Your task to perform on an android device: Clear all items from cart on ebay. Search for "apple airpods" on ebay, select the first entry, add it to the cart, then select checkout. Image 0: 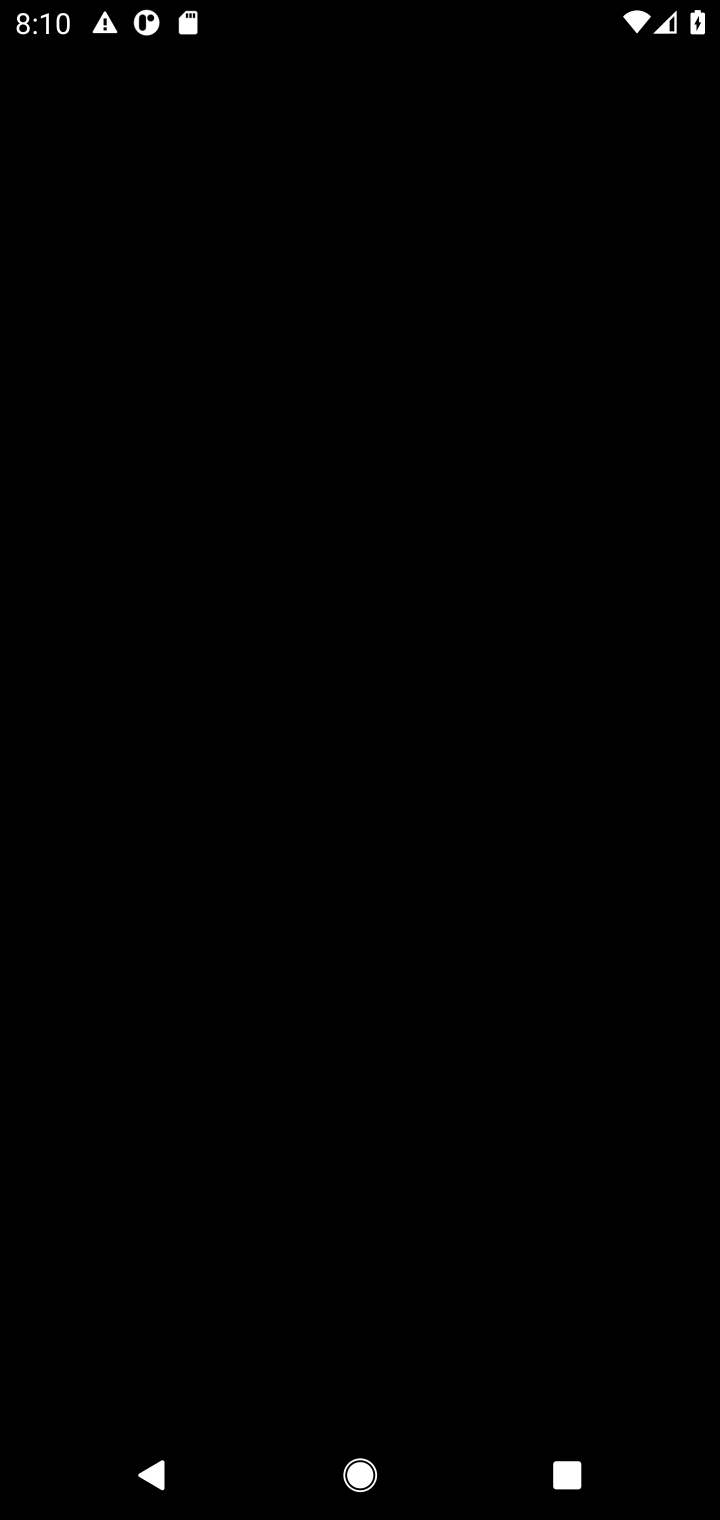
Step 0: press home button
Your task to perform on an android device: Clear all items from cart on ebay. Search for "apple airpods" on ebay, select the first entry, add it to the cart, then select checkout. Image 1: 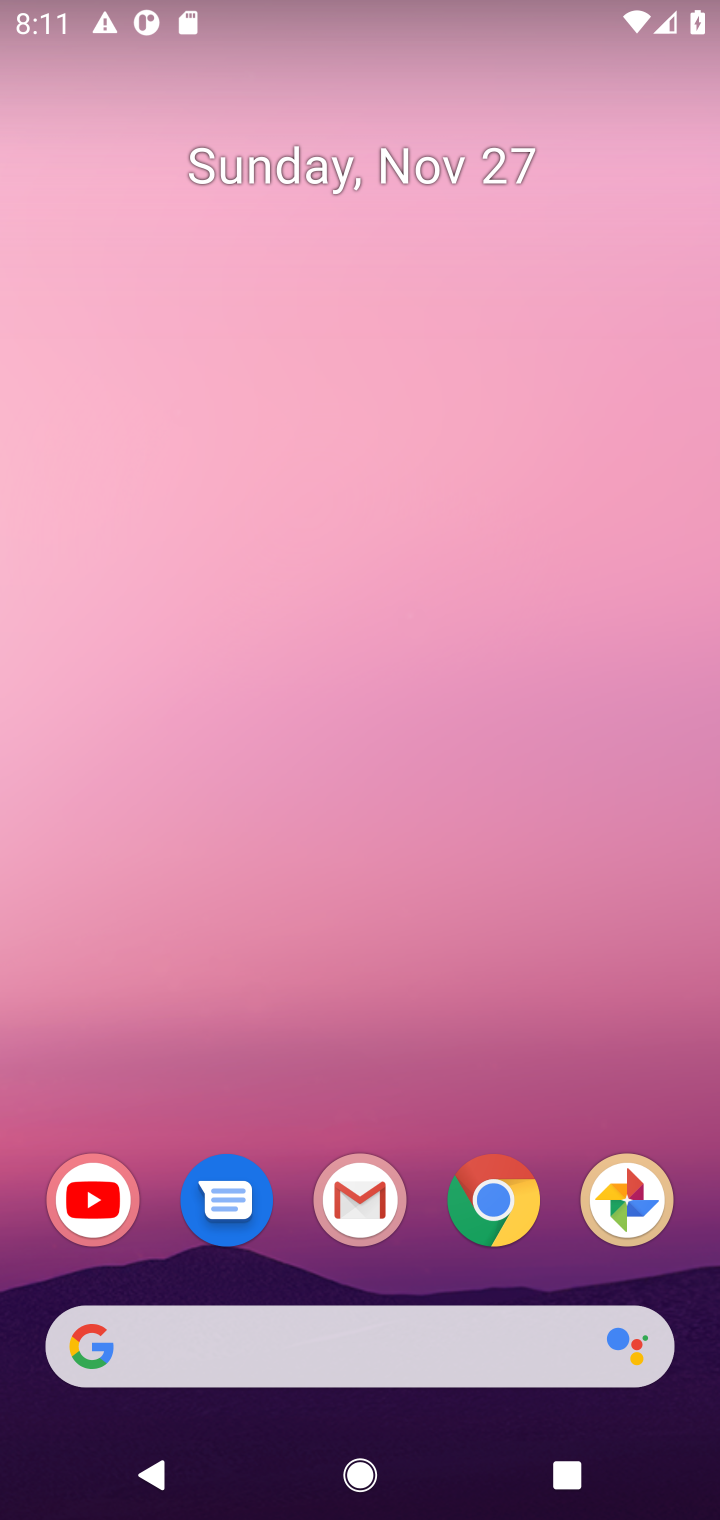
Step 1: click (491, 1201)
Your task to perform on an android device: Clear all items from cart on ebay. Search for "apple airpods" on ebay, select the first entry, add it to the cart, then select checkout. Image 2: 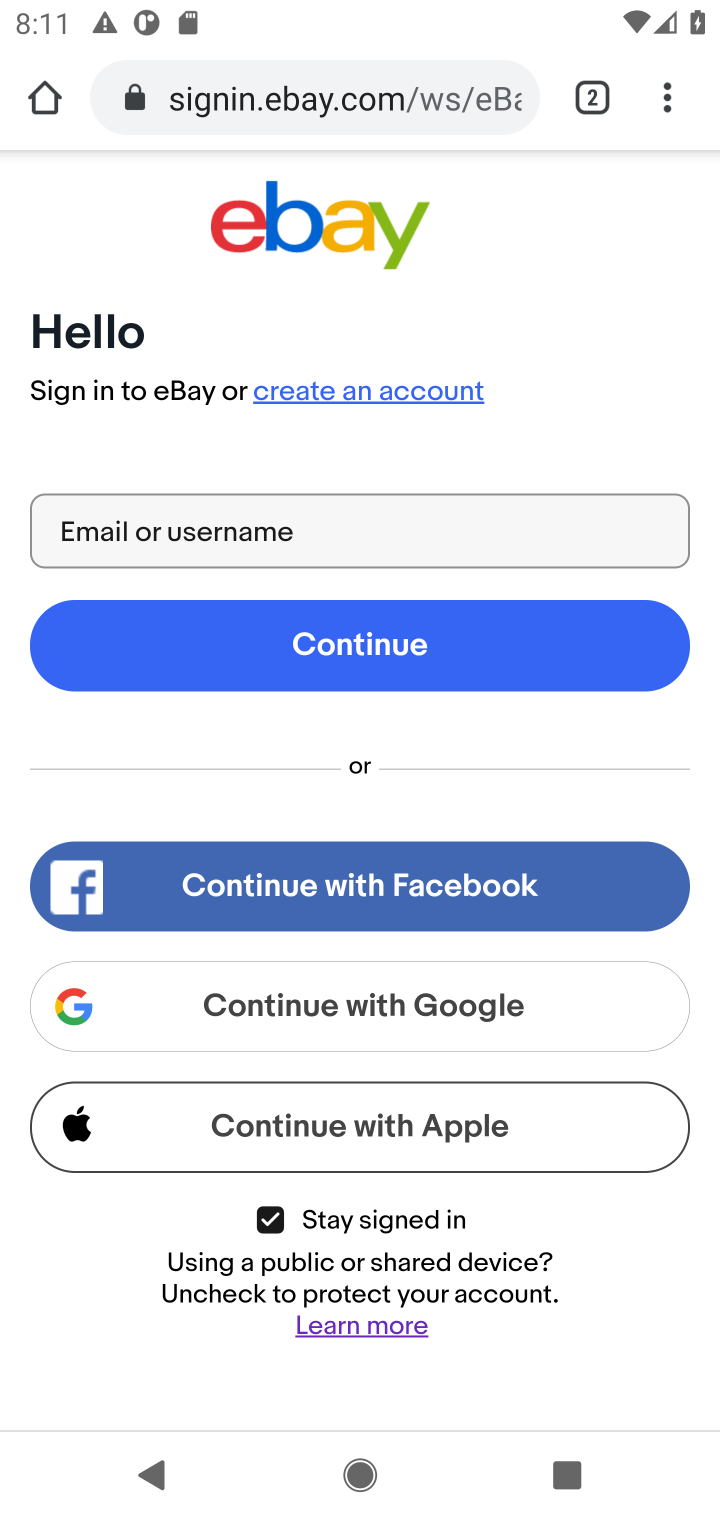
Step 2: press back button
Your task to perform on an android device: Clear all items from cart on ebay. Search for "apple airpods" on ebay, select the first entry, add it to the cart, then select checkout. Image 3: 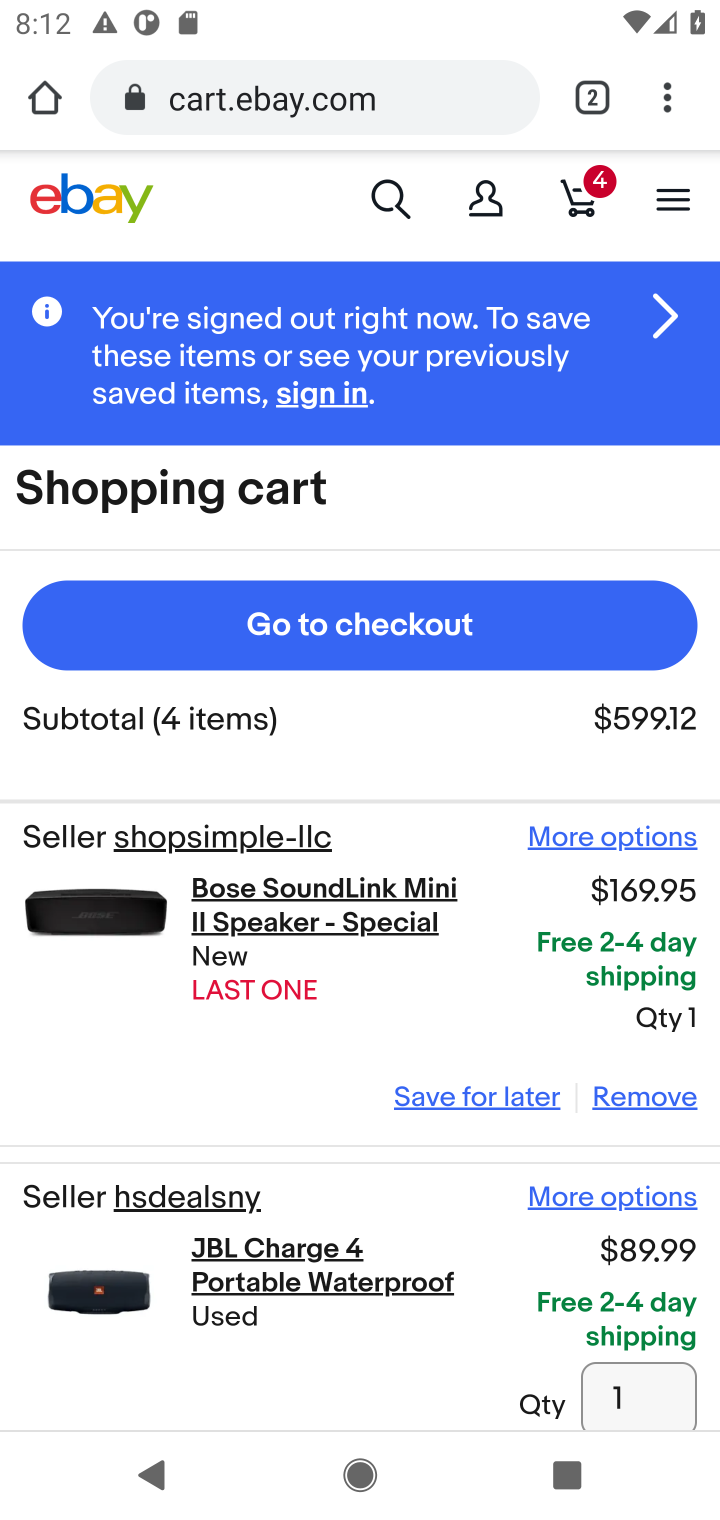
Step 3: click (644, 1105)
Your task to perform on an android device: Clear all items from cart on ebay. Search for "apple airpods" on ebay, select the first entry, add it to the cart, then select checkout. Image 4: 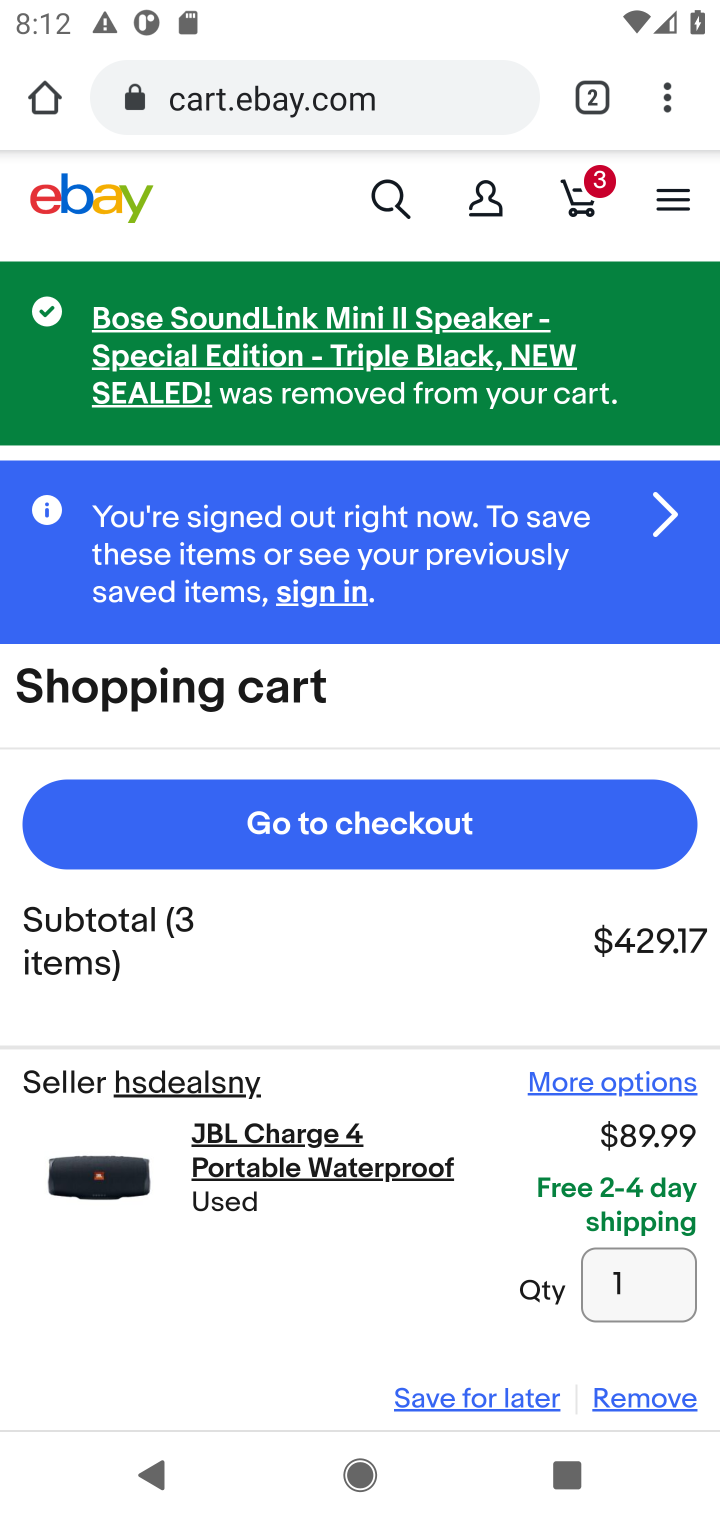
Step 4: click (626, 1405)
Your task to perform on an android device: Clear all items from cart on ebay. Search for "apple airpods" on ebay, select the first entry, add it to the cart, then select checkout. Image 5: 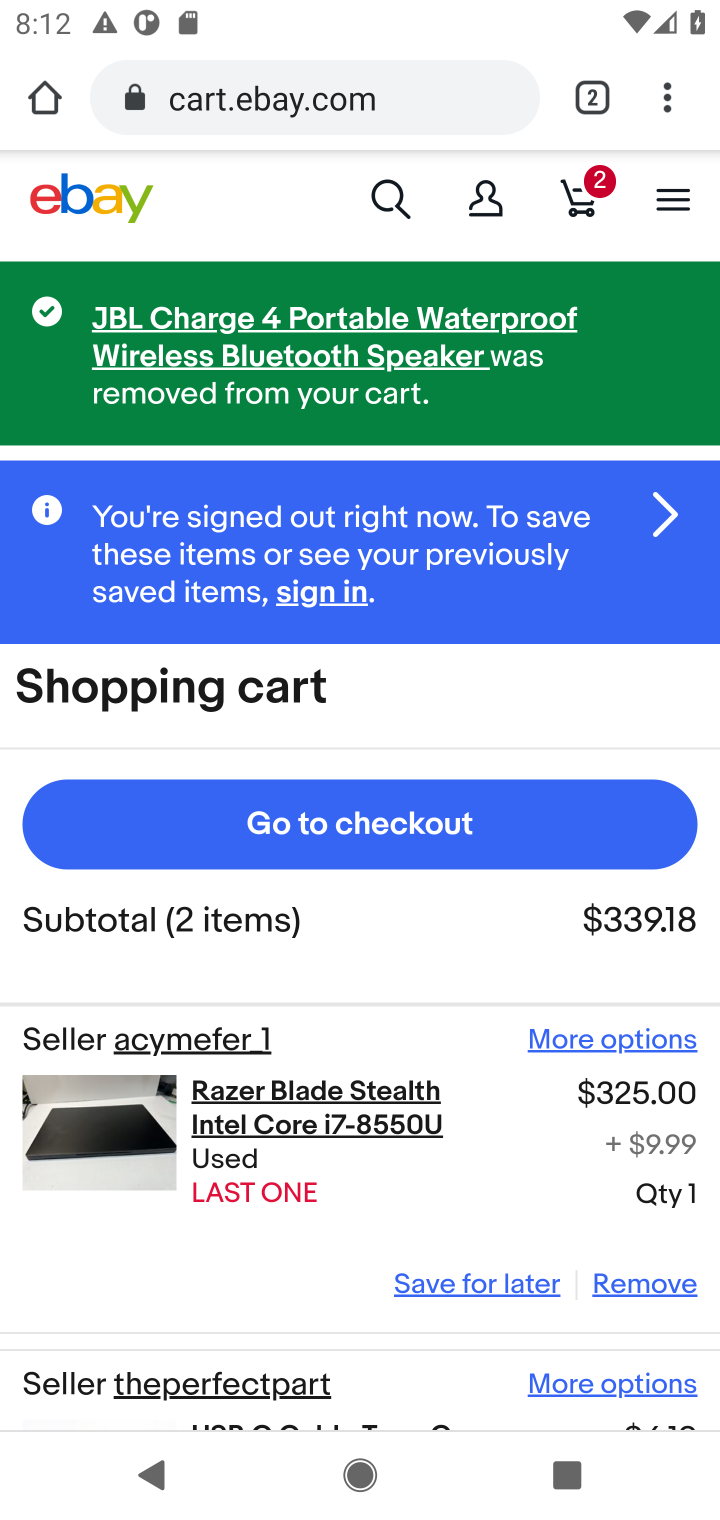
Step 5: click (639, 1296)
Your task to perform on an android device: Clear all items from cart on ebay. Search for "apple airpods" on ebay, select the first entry, add it to the cart, then select checkout. Image 6: 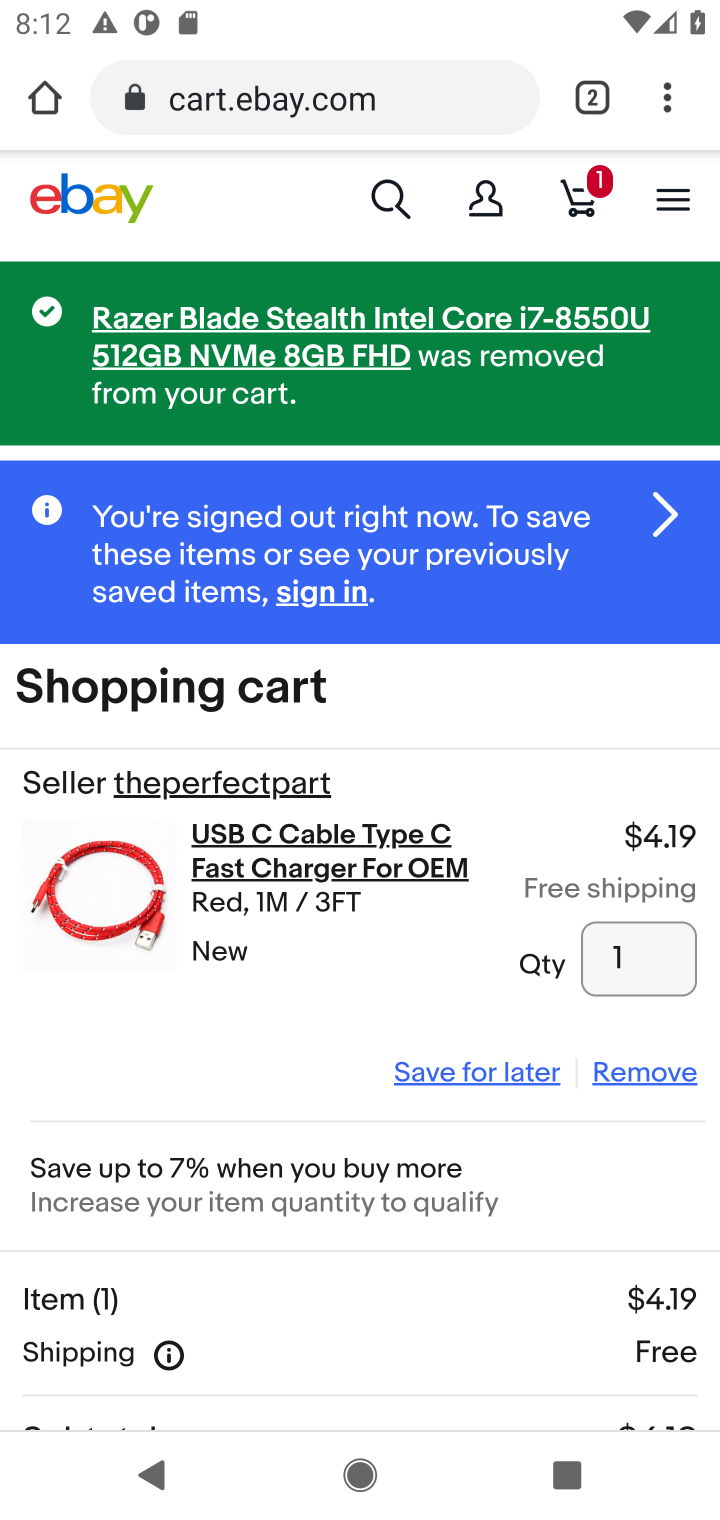
Step 6: click (647, 1072)
Your task to perform on an android device: Clear all items from cart on ebay. Search for "apple airpods" on ebay, select the first entry, add it to the cart, then select checkout. Image 7: 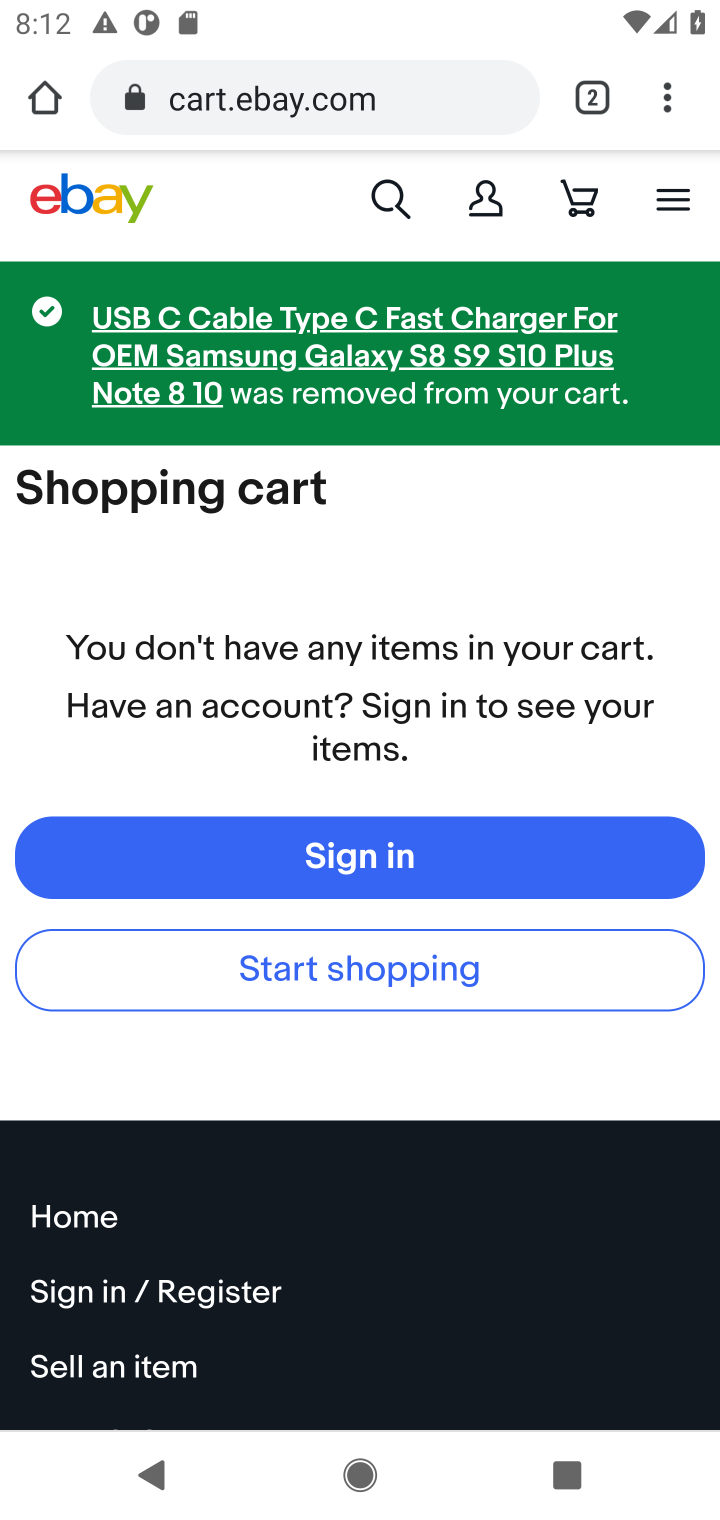
Step 7: click (395, 206)
Your task to perform on an android device: Clear all items from cart on ebay. Search for "apple airpods" on ebay, select the first entry, add it to the cart, then select checkout. Image 8: 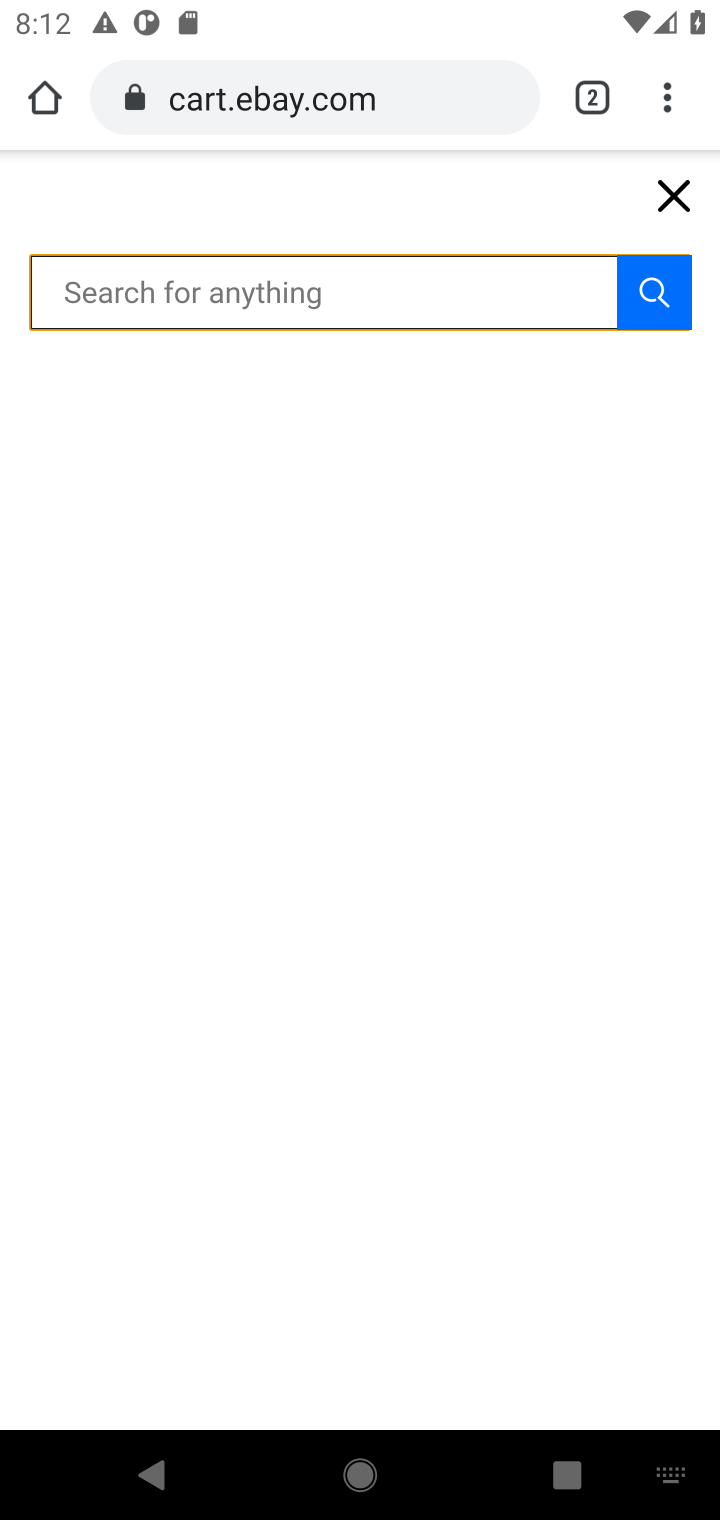
Step 8: type "apple airpods"
Your task to perform on an android device: Clear all items from cart on ebay. Search for "apple airpods" on ebay, select the first entry, add it to the cart, then select checkout. Image 9: 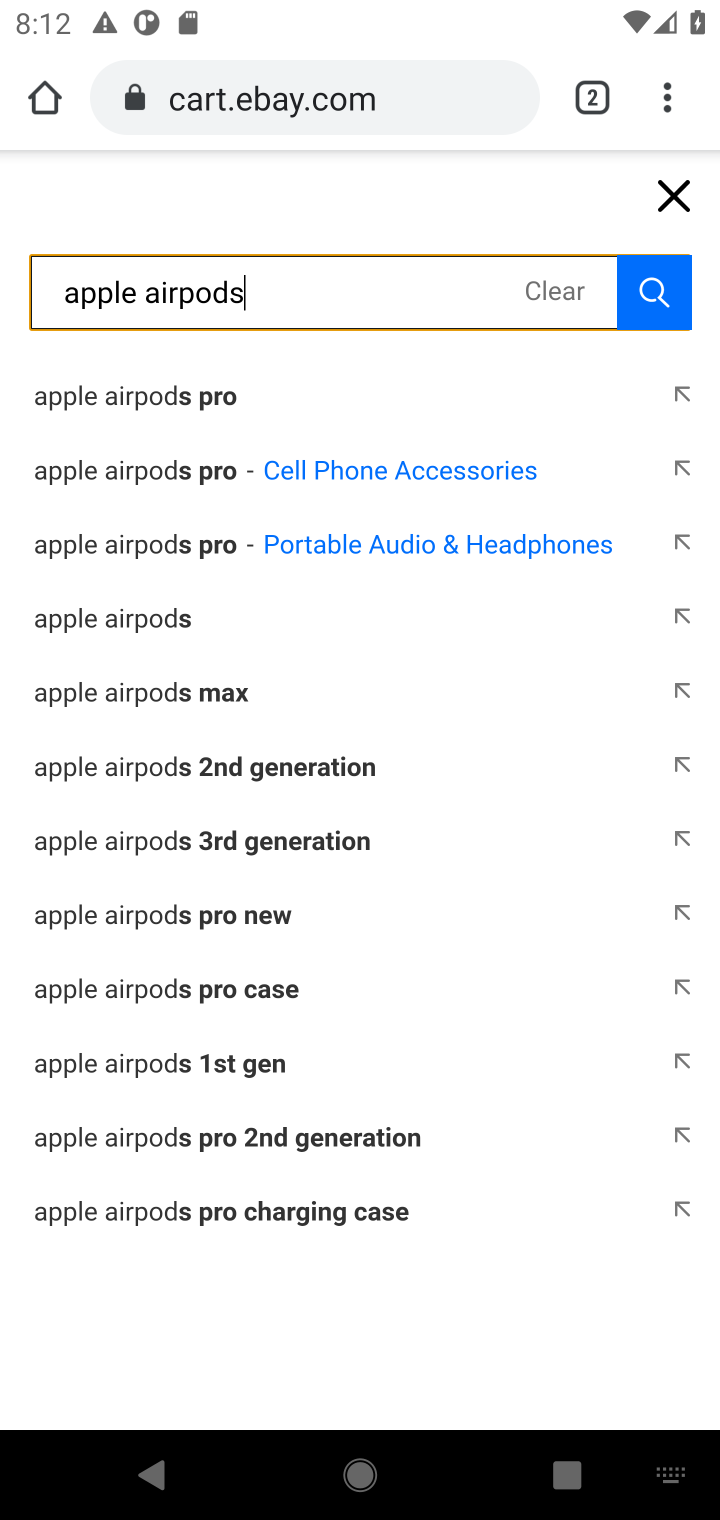
Step 9: click (145, 620)
Your task to perform on an android device: Clear all items from cart on ebay. Search for "apple airpods" on ebay, select the first entry, add it to the cart, then select checkout. Image 10: 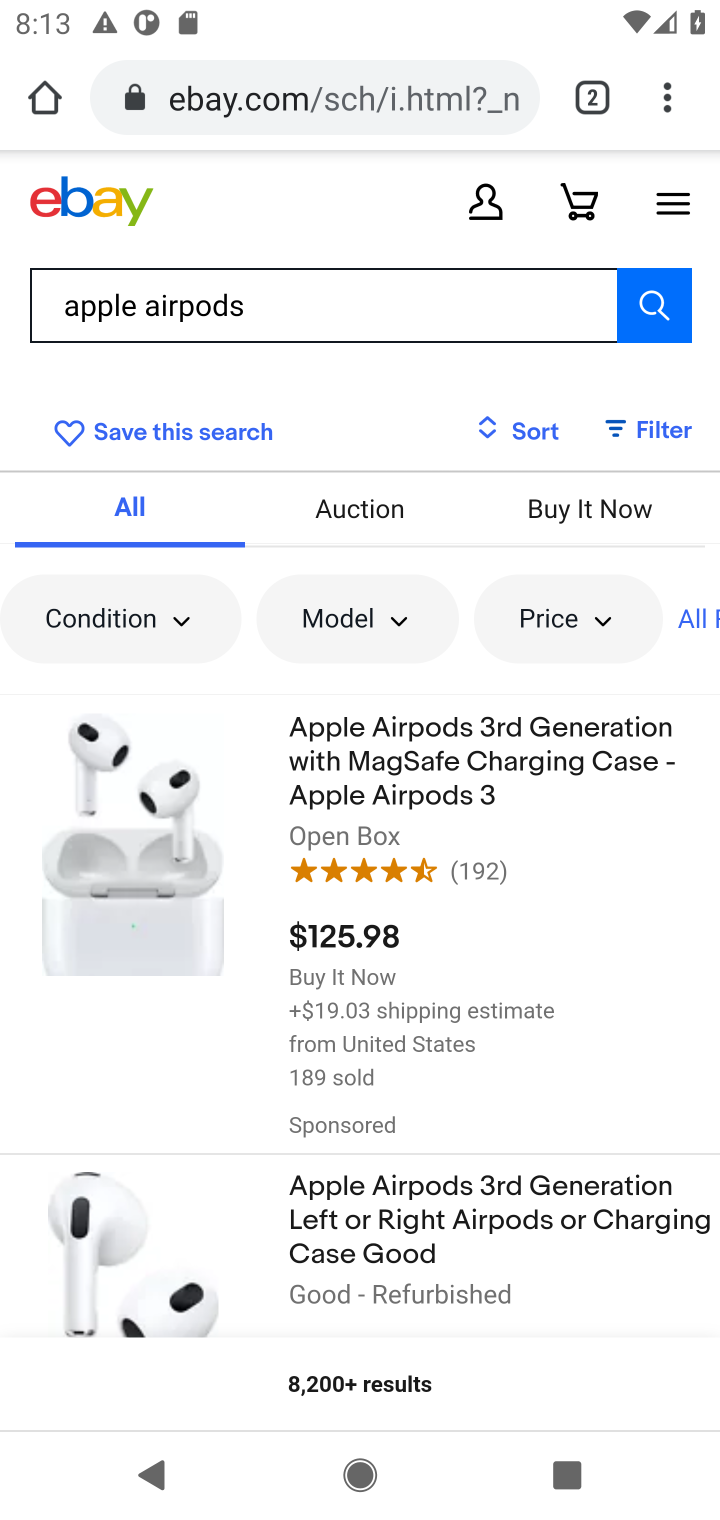
Step 10: click (125, 816)
Your task to perform on an android device: Clear all items from cart on ebay. Search for "apple airpods" on ebay, select the first entry, add it to the cart, then select checkout. Image 11: 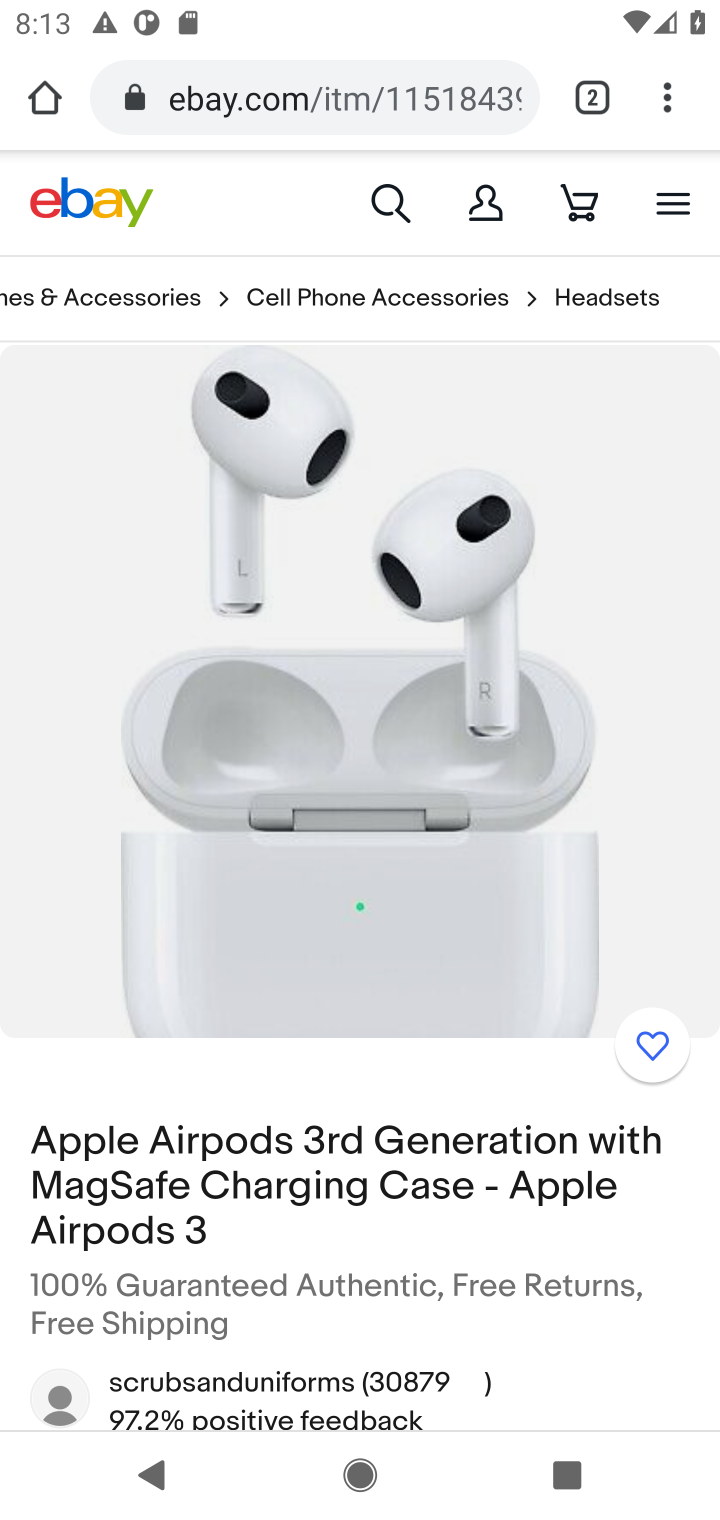
Step 11: drag from (350, 1003) to (377, 563)
Your task to perform on an android device: Clear all items from cart on ebay. Search for "apple airpods" on ebay, select the first entry, add it to the cart, then select checkout. Image 12: 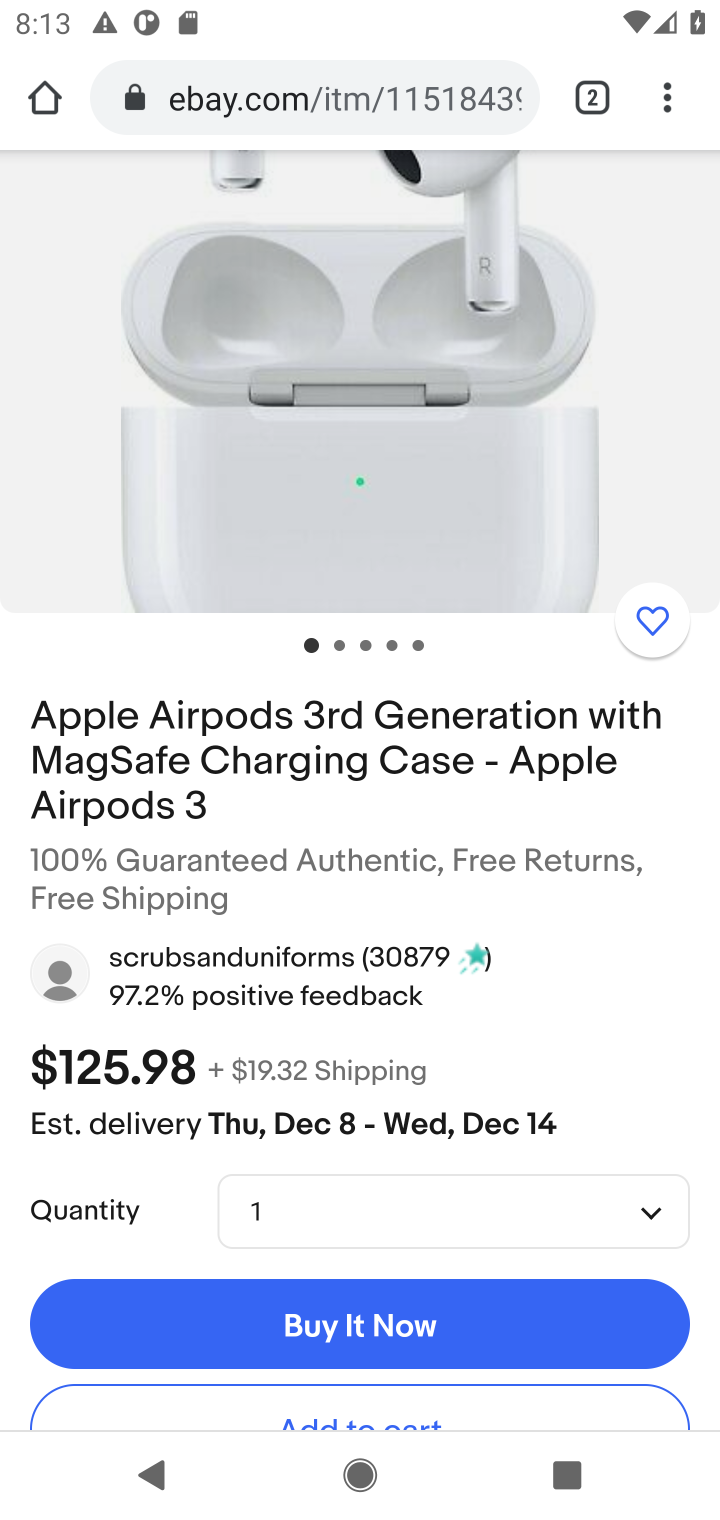
Step 12: drag from (359, 1176) to (421, 583)
Your task to perform on an android device: Clear all items from cart on ebay. Search for "apple airpods" on ebay, select the first entry, add it to the cart, then select checkout. Image 13: 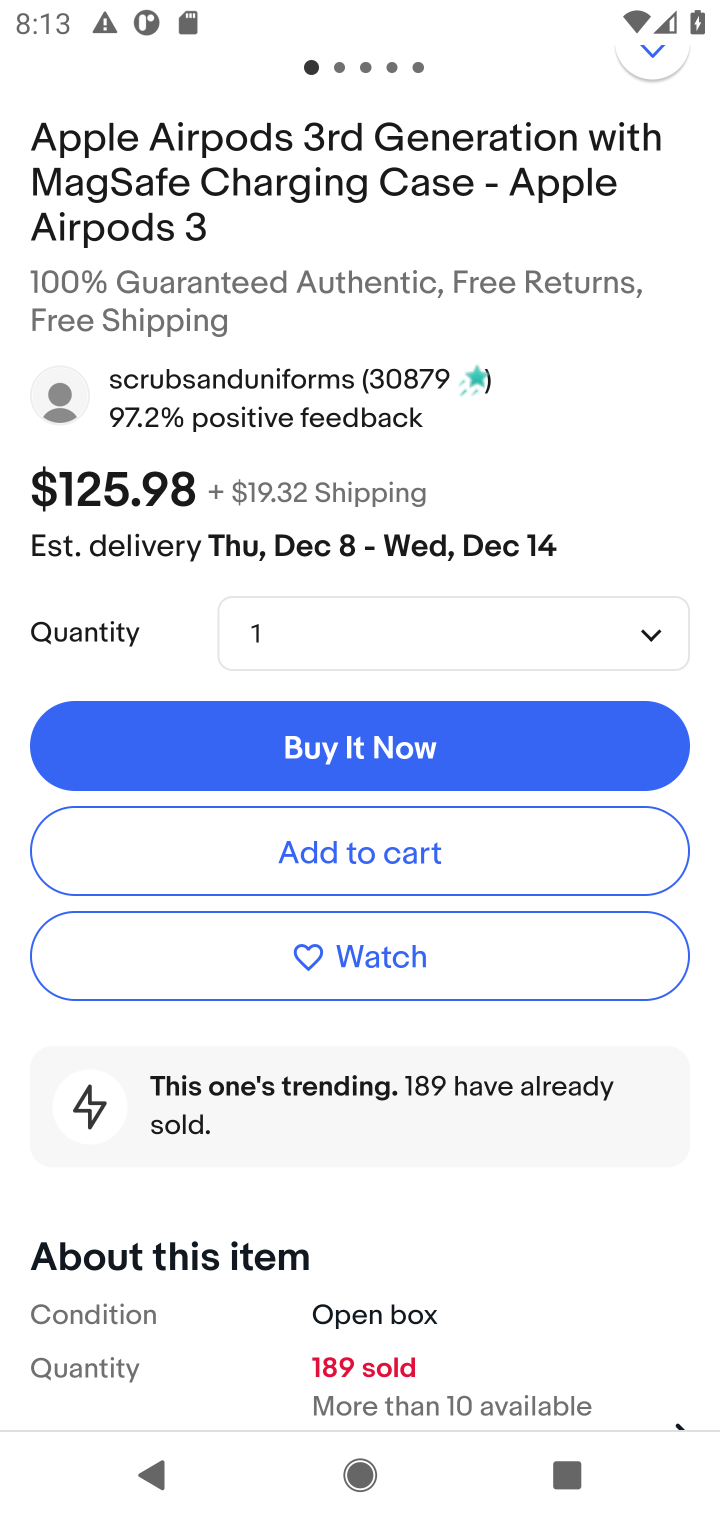
Step 13: click (349, 838)
Your task to perform on an android device: Clear all items from cart on ebay. Search for "apple airpods" on ebay, select the first entry, add it to the cart, then select checkout. Image 14: 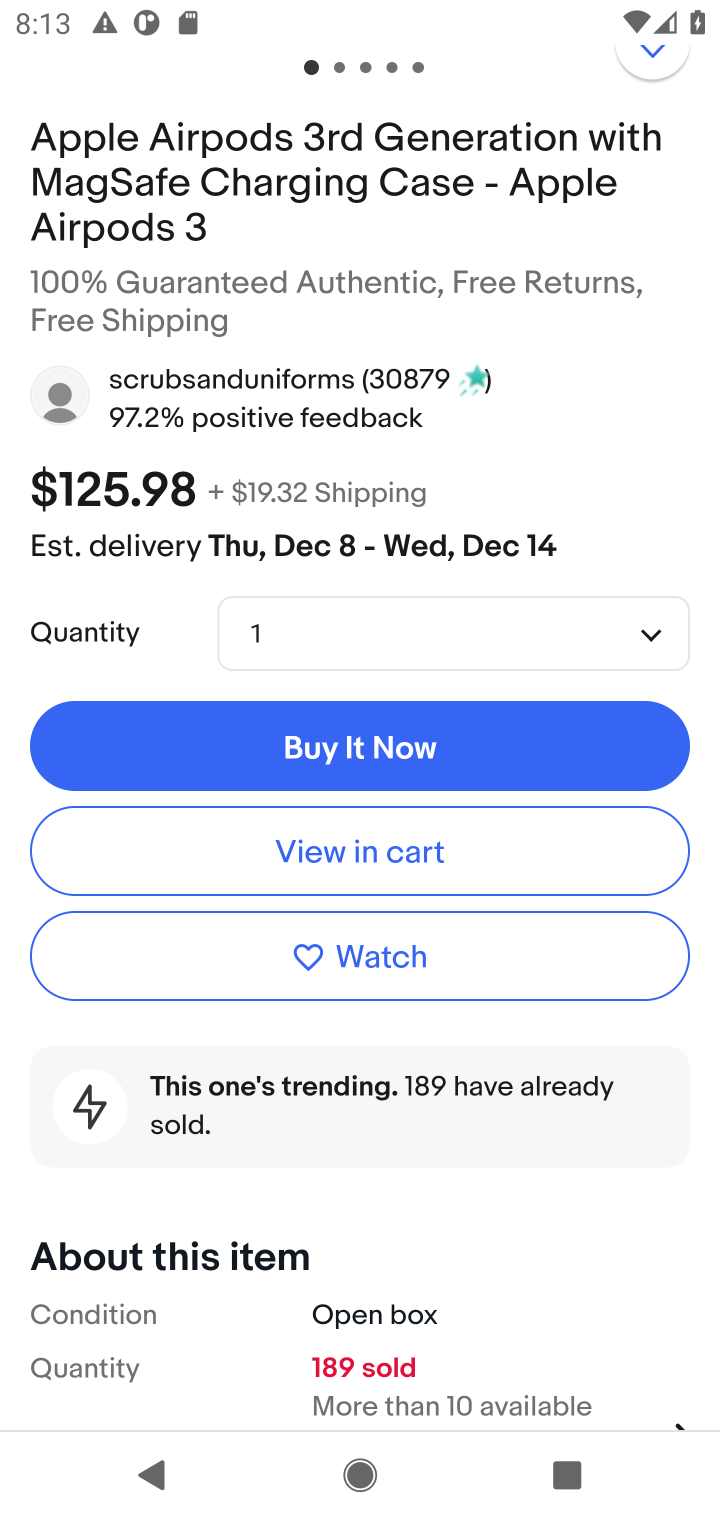
Step 14: click (349, 840)
Your task to perform on an android device: Clear all items from cart on ebay. Search for "apple airpods" on ebay, select the first entry, add it to the cart, then select checkout. Image 15: 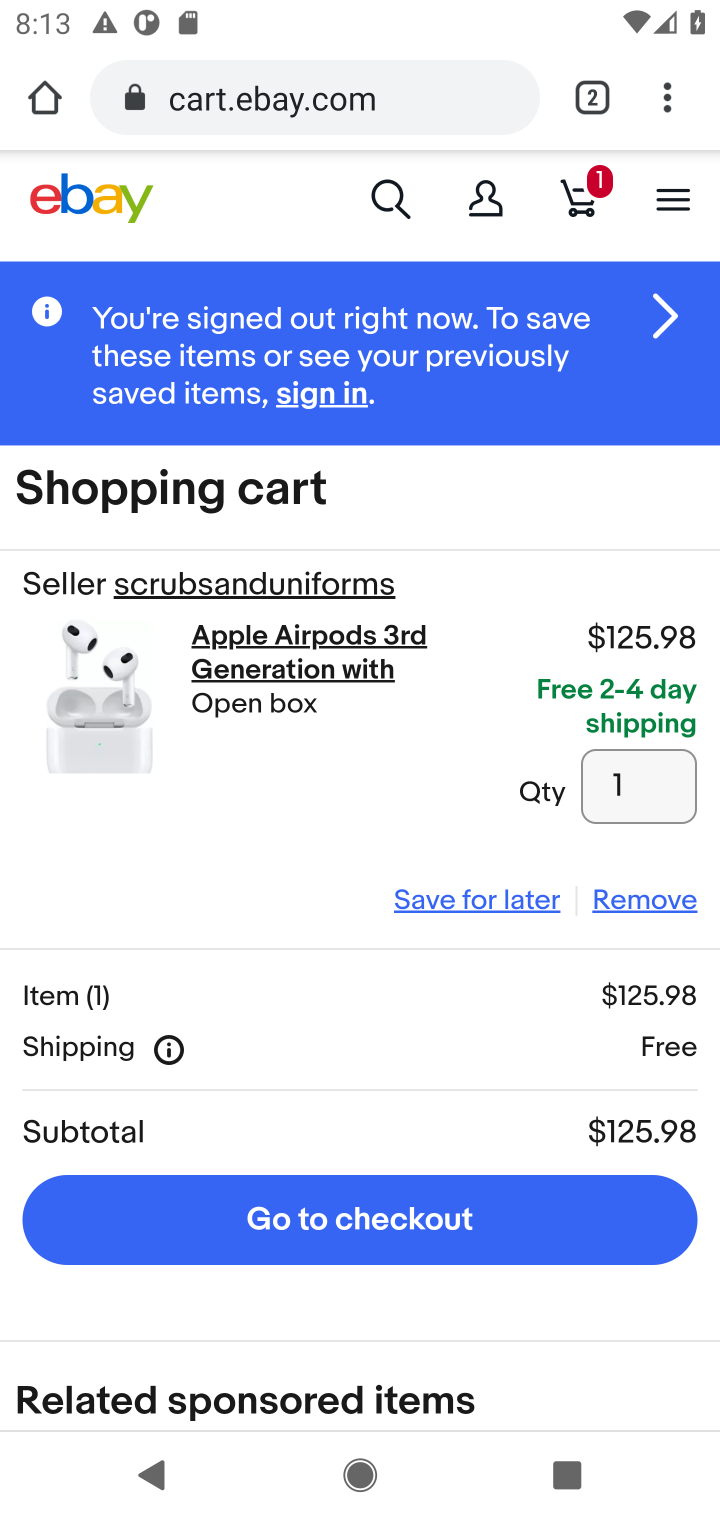
Step 15: click (338, 1209)
Your task to perform on an android device: Clear all items from cart on ebay. Search for "apple airpods" on ebay, select the first entry, add it to the cart, then select checkout. Image 16: 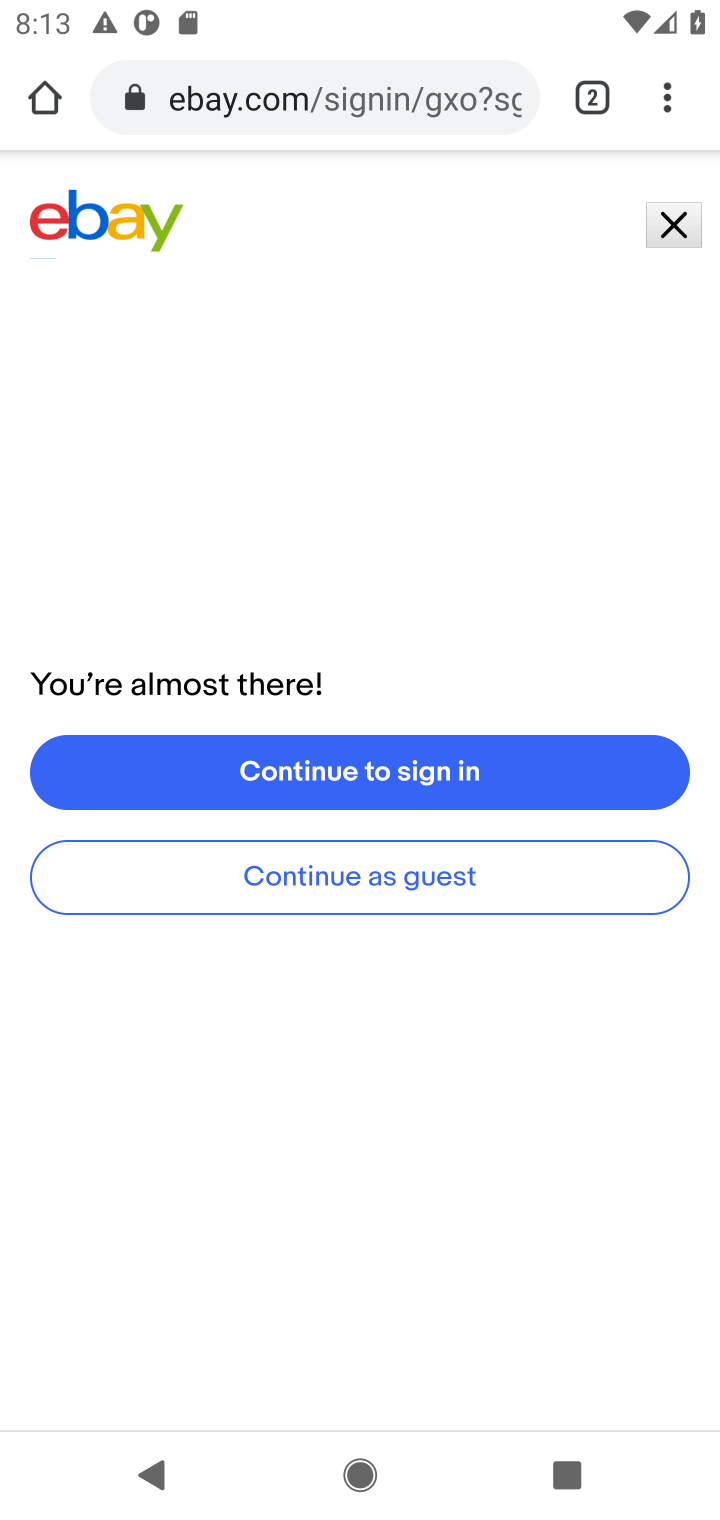
Step 16: task complete